Your task to perform on an android device: Search for Mexican restaurants on Maps Image 0: 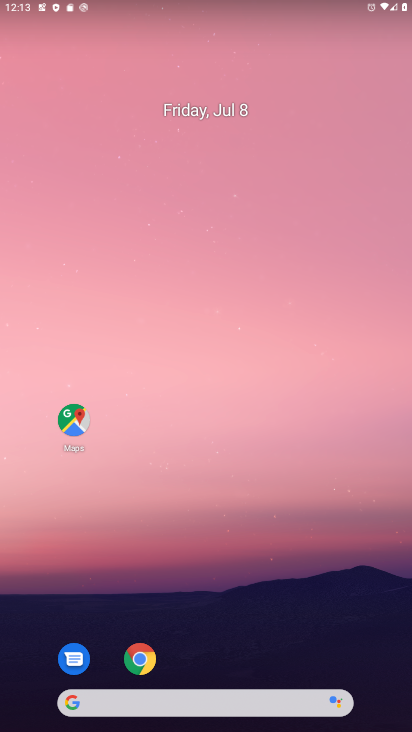
Step 0: click (66, 425)
Your task to perform on an android device: Search for Mexican restaurants on Maps Image 1: 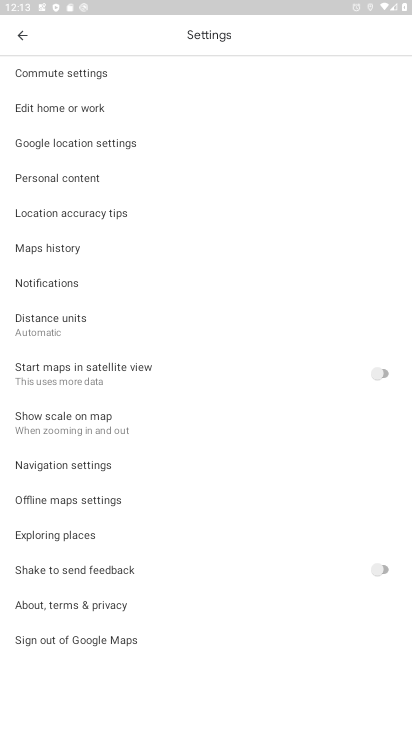
Step 1: click (18, 34)
Your task to perform on an android device: Search for Mexican restaurants on Maps Image 2: 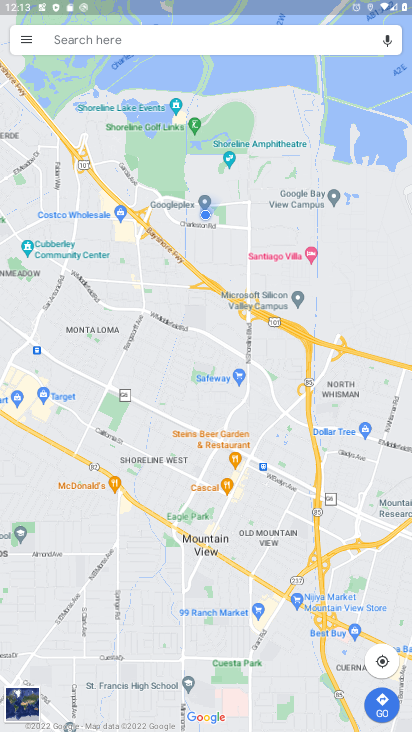
Step 2: click (93, 32)
Your task to perform on an android device: Search for Mexican restaurants on Maps Image 3: 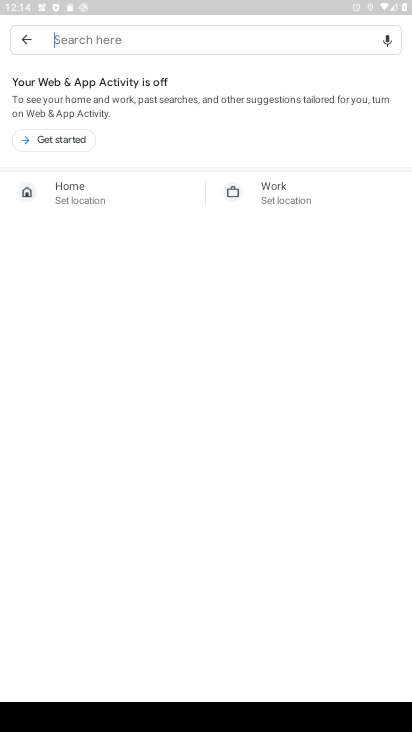
Step 3: type "mexican restaurants"
Your task to perform on an android device: Search for Mexican restaurants on Maps Image 4: 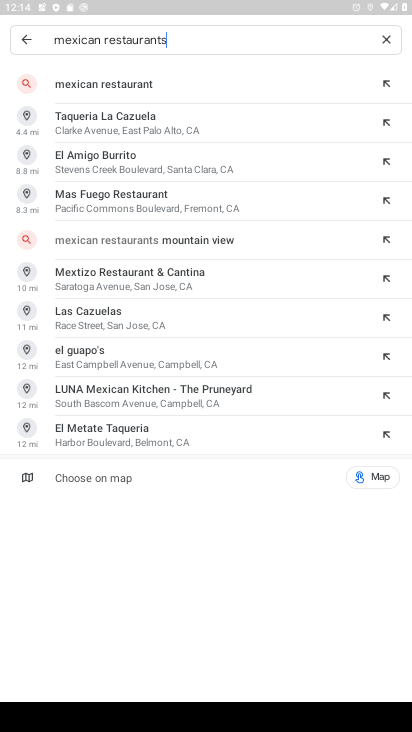
Step 4: click (125, 79)
Your task to perform on an android device: Search for Mexican restaurants on Maps Image 5: 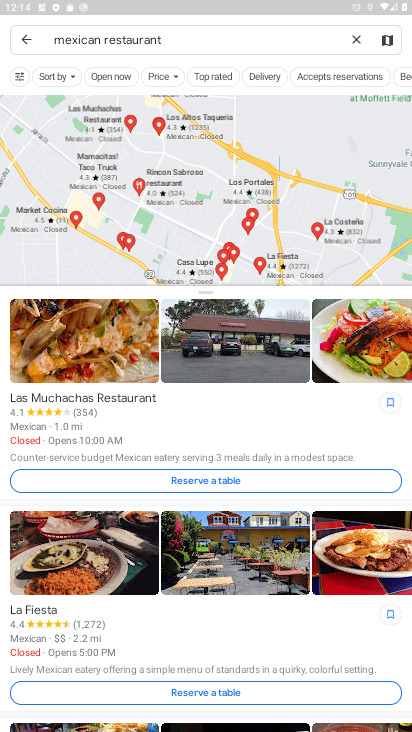
Step 5: task complete